Your task to perform on an android device: Is it going to rain today? Image 0: 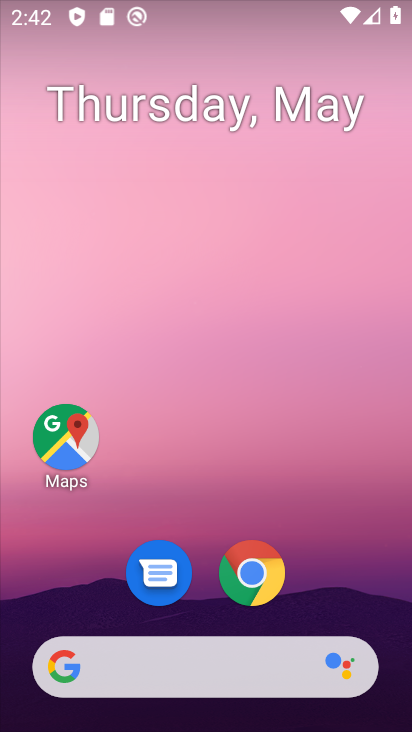
Step 0: click (199, 665)
Your task to perform on an android device: Is it going to rain today? Image 1: 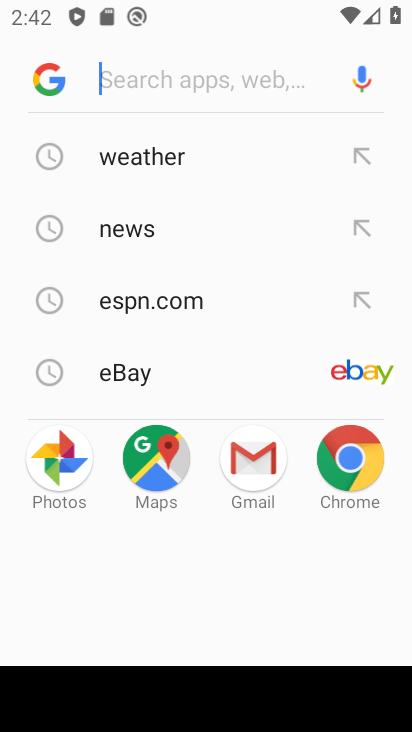
Step 1: click (148, 150)
Your task to perform on an android device: Is it going to rain today? Image 2: 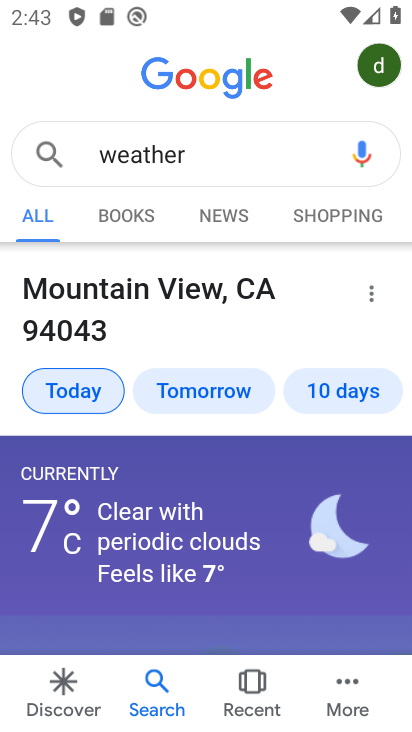
Step 2: task complete